Your task to perform on an android device: Go to calendar. Show me events next week Image 0: 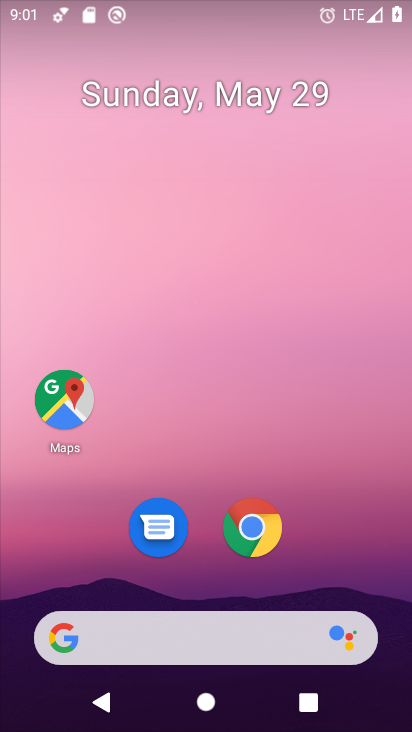
Step 0: press home button
Your task to perform on an android device: Go to calendar. Show me events next week Image 1: 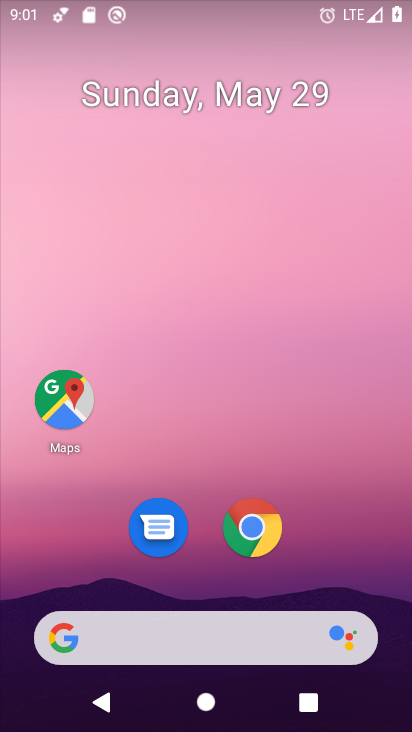
Step 1: drag from (204, 580) to (237, 78)
Your task to perform on an android device: Go to calendar. Show me events next week Image 2: 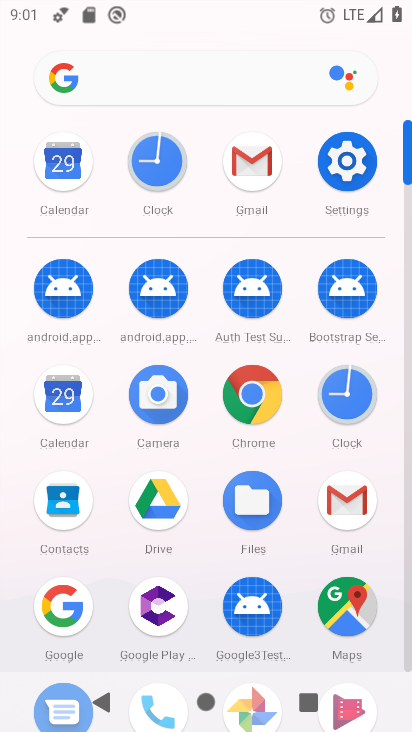
Step 2: click (63, 388)
Your task to perform on an android device: Go to calendar. Show me events next week Image 3: 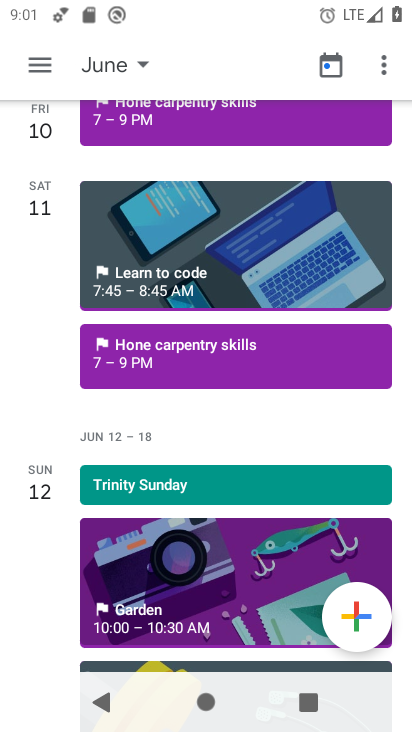
Step 3: click (141, 59)
Your task to perform on an android device: Go to calendar. Show me events next week Image 4: 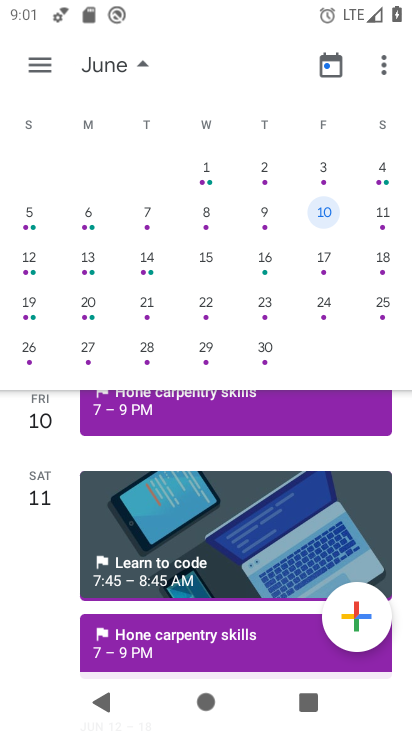
Step 4: click (28, 215)
Your task to perform on an android device: Go to calendar. Show me events next week Image 5: 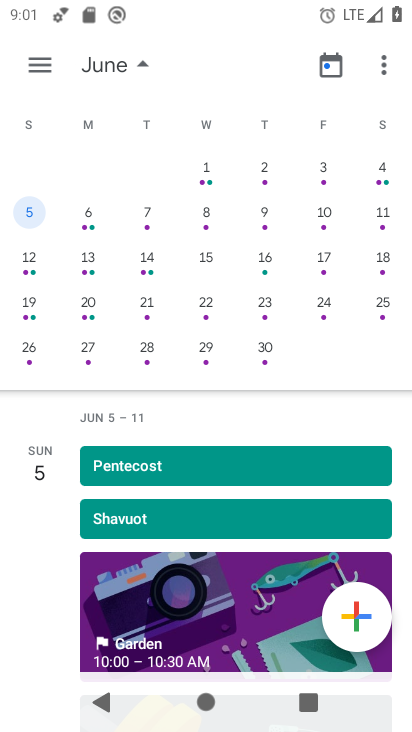
Step 5: click (138, 63)
Your task to perform on an android device: Go to calendar. Show me events next week Image 6: 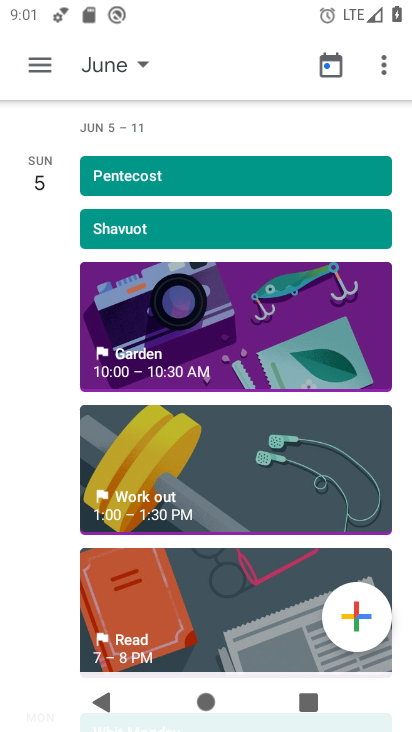
Step 6: click (68, 463)
Your task to perform on an android device: Go to calendar. Show me events next week Image 7: 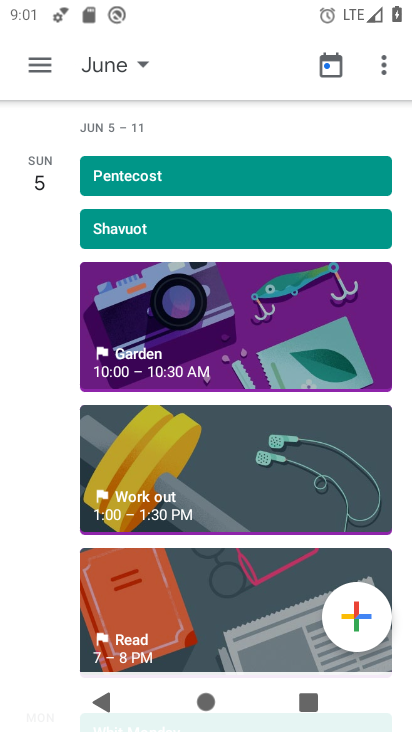
Step 7: task complete